Your task to perform on an android device: turn notification dots off Image 0: 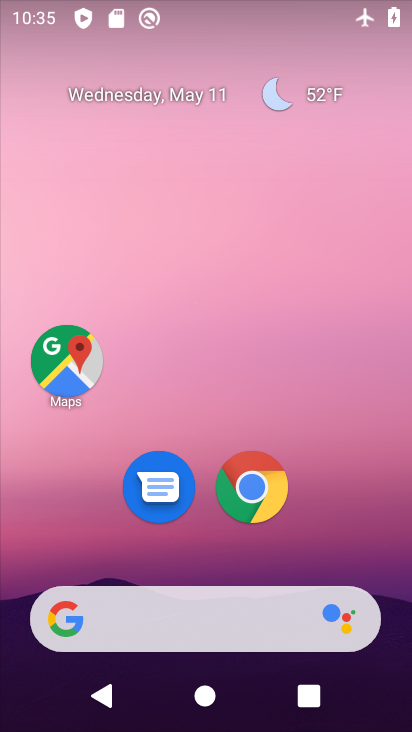
Step 0: drag from (334, 517) to (227, 1)
Your task to perform on an android device: turn notification dots off Image 1: 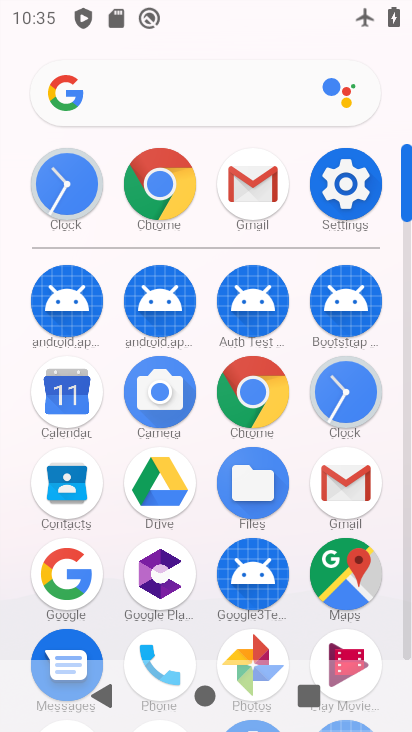
Step 1: click (341, 178)
Your task to perform on an android device: turn notification dots off Image 2: 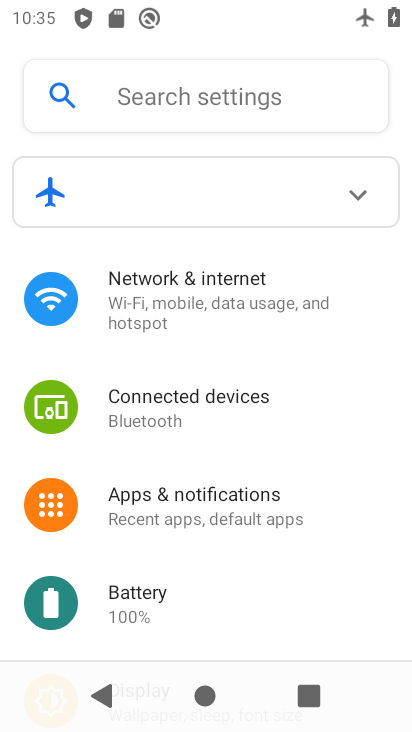
Step 2: drag from (297, 551) to (297, 252)
Your task to perform on an android device: turn notification dots off Image 3: 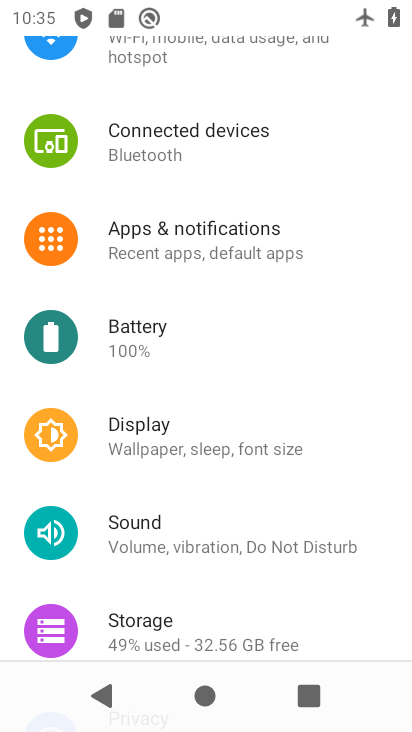
Step 3: click (216, 243)
Your task to perform on an android device: turn notification dots off Image 4: 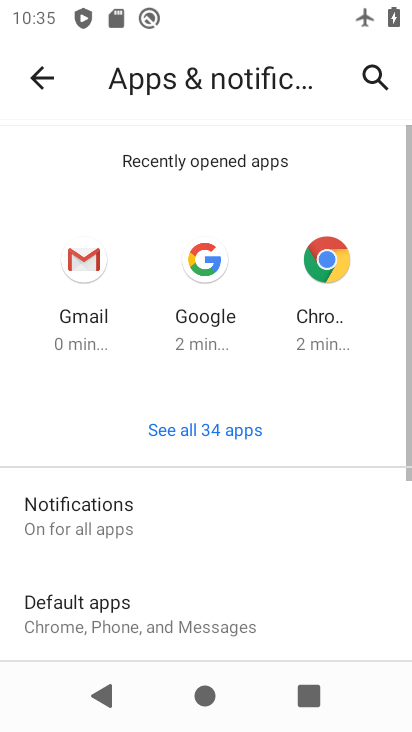
Step 4: click (150, 538)
Your task to perform on an android device: turn notification dots off Image 5: 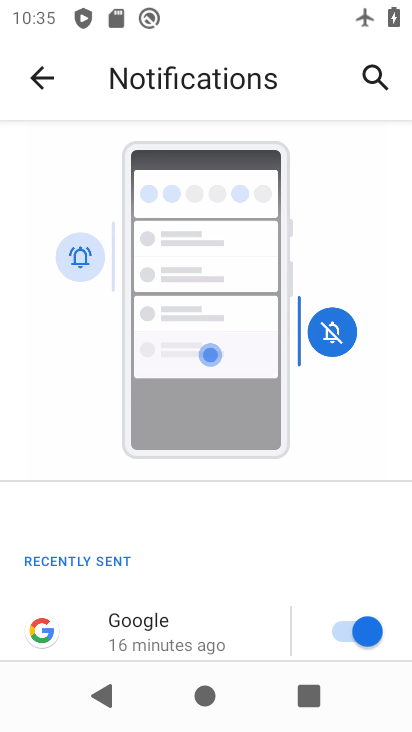
Step 5: drag from (212, 581) to (231, 186)
Your task to perform on an android device: turn notification dots off Image 6: 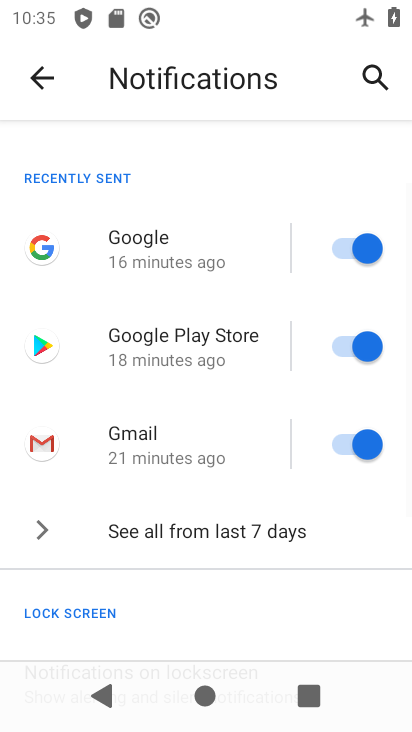
Step 6: drag from (177, 585) to (220, 134)
Your task to perform on an android device: turn notification dots off Image 7: 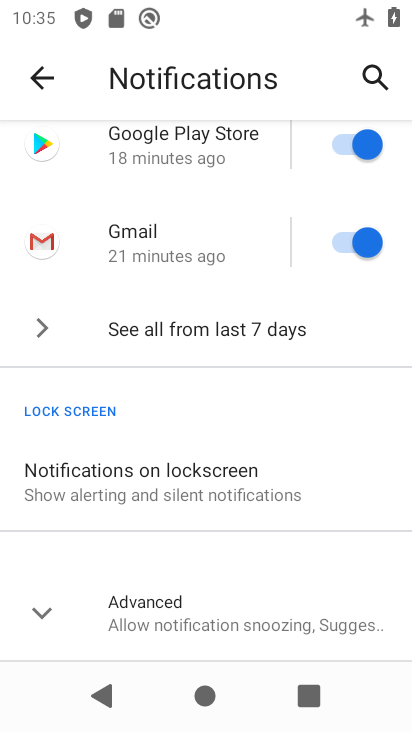
Step 7: click (113, 619)
Your task to perform on an android device: turn notification dots off Image 8: 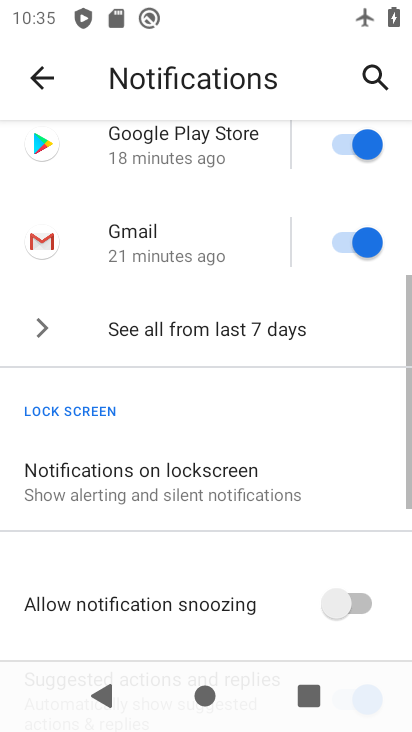
Step 8: task complete